Your task to perform on an android device: toggle wifi Image 0: 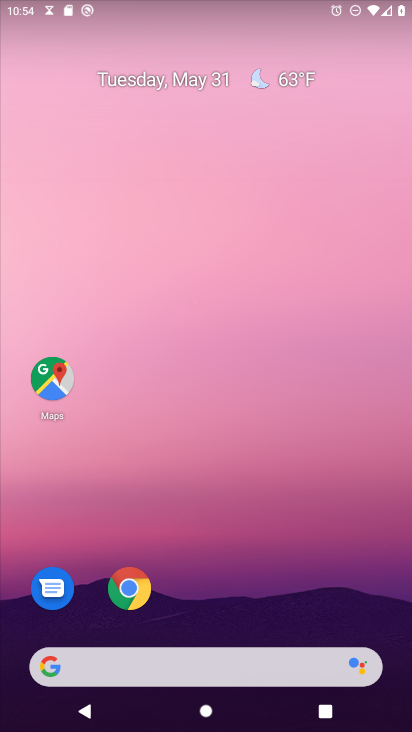
Step 0: drag from (309, 593) to (269, 188)
Your task to perform on an android device: toggle wifi Image 1: 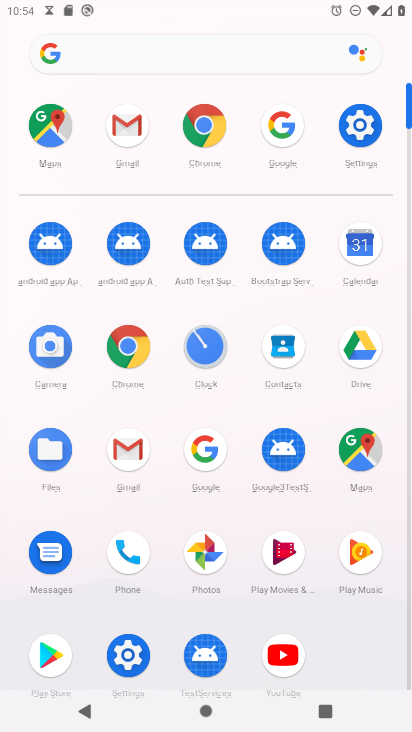
Step 1: click (359, 125)
Your task to perform on an android device: toggle wifi Image 2: 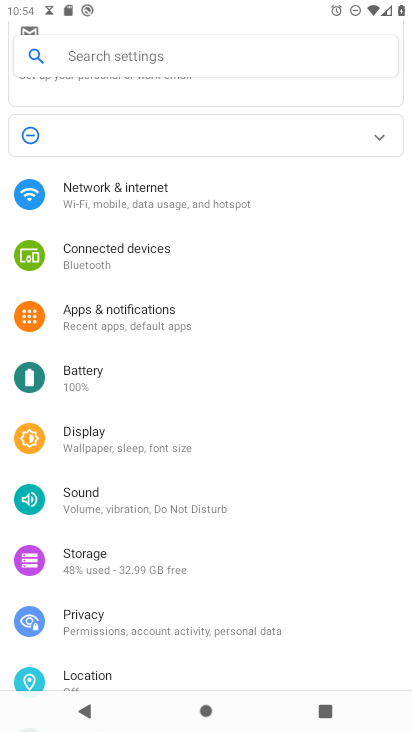
Step 2: click (110, 207)
Your task to perform on an android device: toggle wifi Image 3: 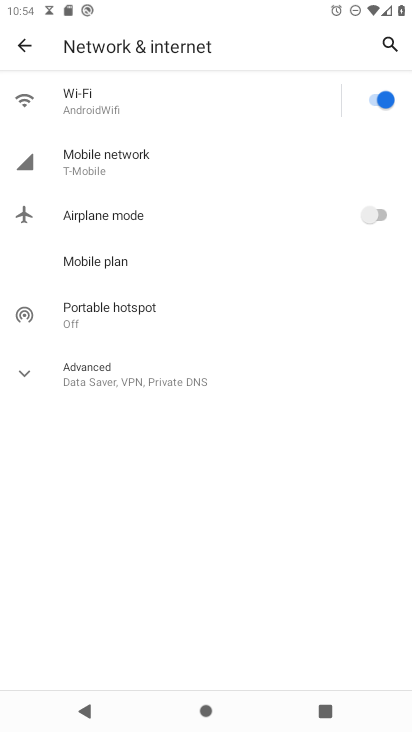
Step 3: click (373, 98)
Your task to perform on an android device: toggle wifi Image 4: 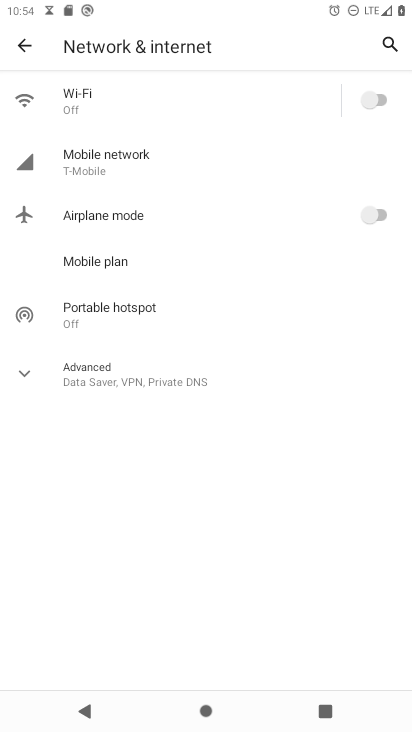
Step 4: task complete